Your task to perform on an android device: Go to eBay Image 0: 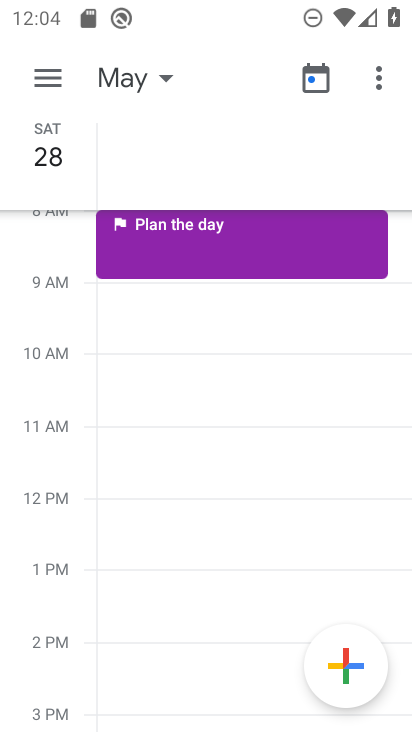
Step 0: press home button
Your task to perform on an android device: Go to eBay Image 1: 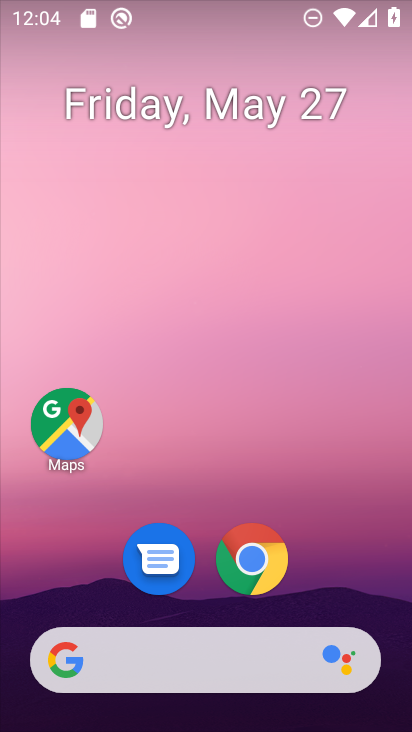
Step 1: click (250, 579)
Your task to perform on an android device: Go to eBay Image 2: 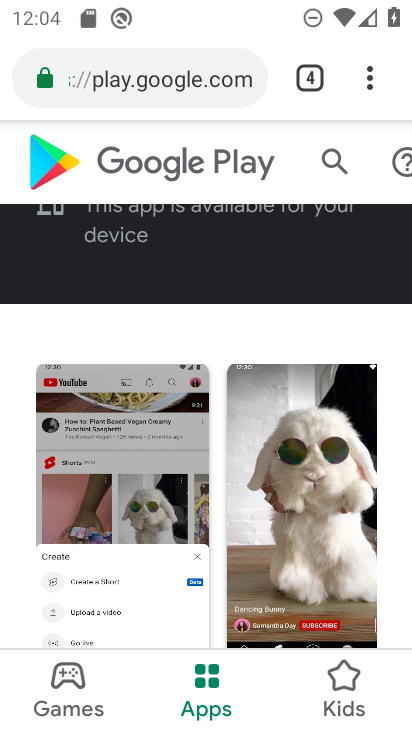
Step 2: click (310, 74)
Your task to perform on an android device: Go to eBay Image 3: 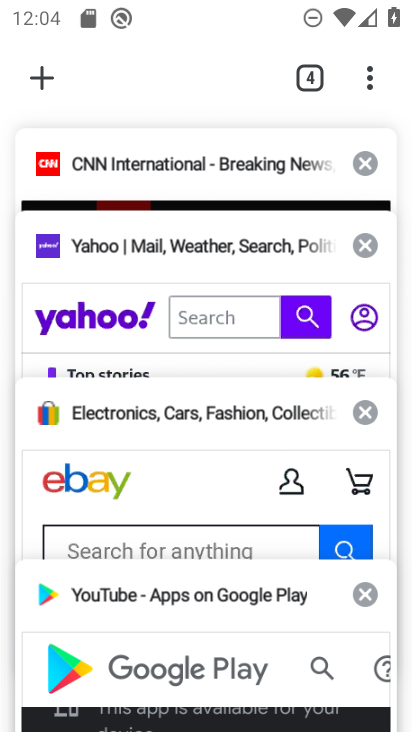
Step 3: click (131, 462)
Your task to perform on an android device: Go to eBay Image 4: 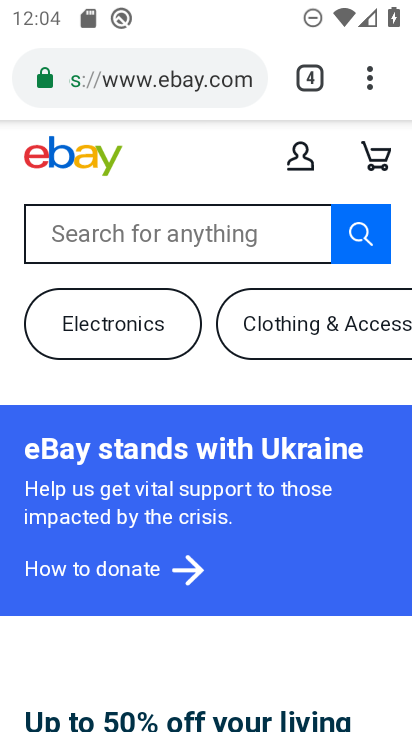
Step 4: task complete